Your task to perform on an android device: Search for the best rated lawnmower on Lowes.com Image 0: 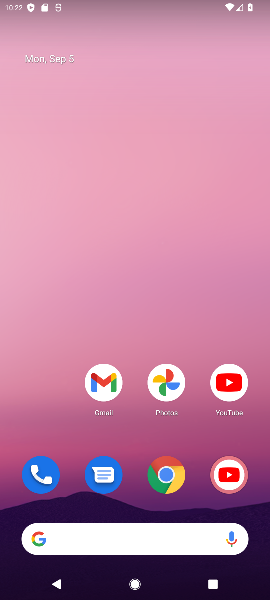
Step 0: click (248, 372)
Your task to perform on an android device: Search for the best rated lawnmower on Lowes.com Image 1: 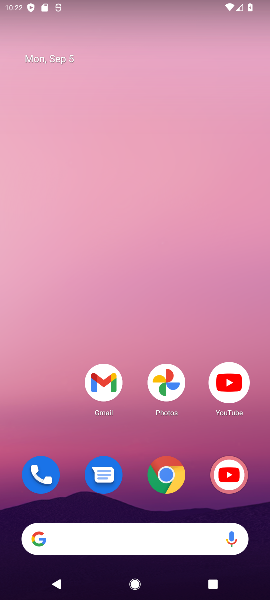
Step 1: task complete